Your task to perform on an android device: turn on notifications settings in the gmail app Image 0: 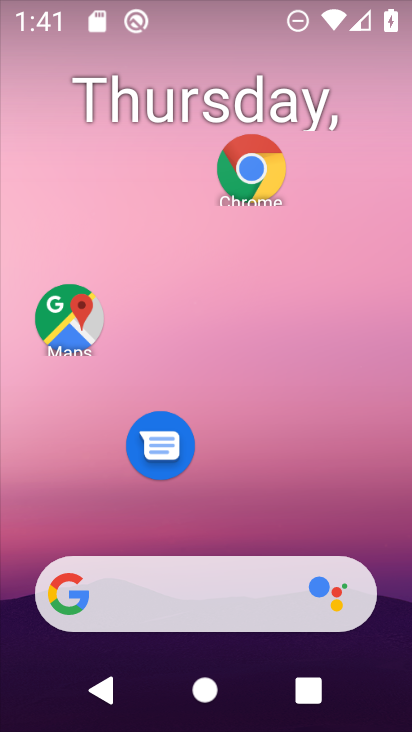
Step 0: click (299, 205)
Your task to perform on an android device: turn on notifications settings in the gmail app Image 1: 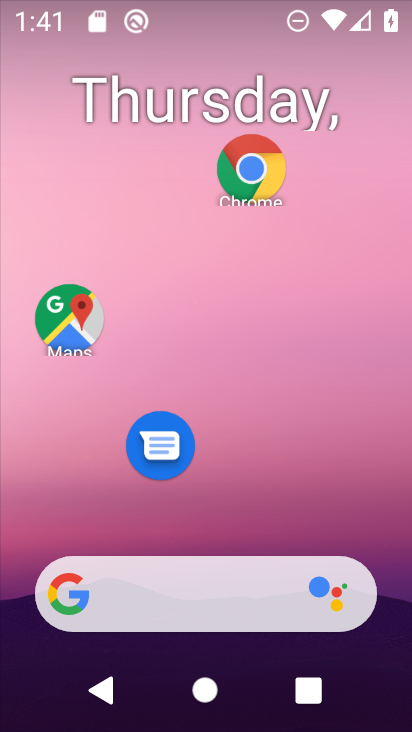
Step 1: drag from (277, 614) to (346, 106)
Your task to perform on an android device: turn on notifications settings in the gmail app Image 2: 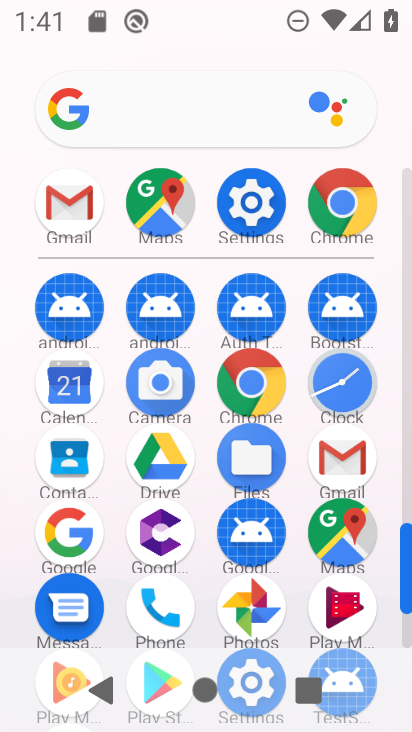
Step 2: click (83, 187)
Your task to perform on an android device: turn on notifications settings in the gmail app Image 3: 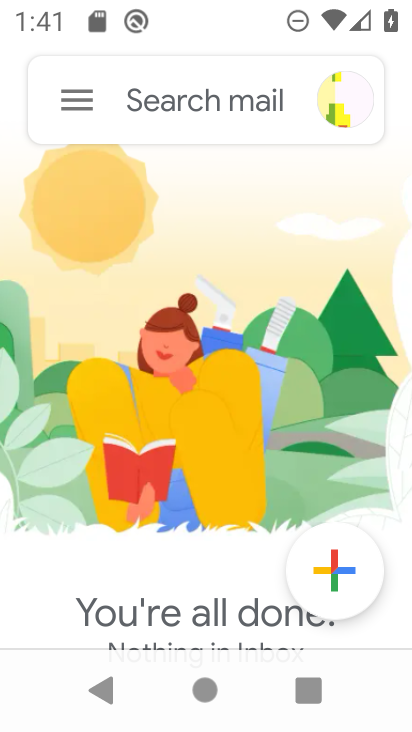
Step 3: click (81, 90)
Your task to perform on an android device: turn on notifications settings in the gmail app Image 4: 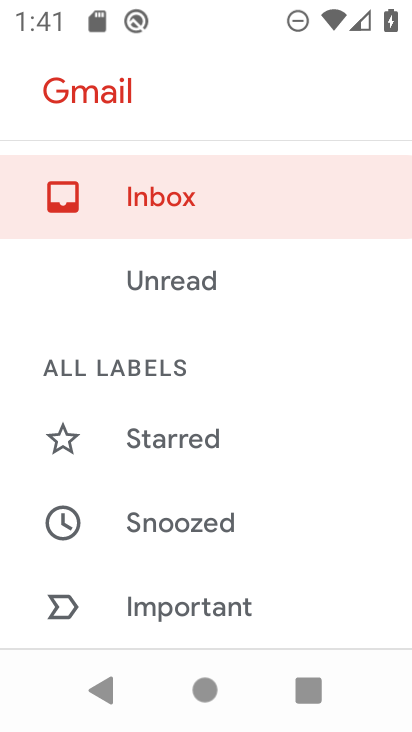
Step 4: drag from (177, 529) to (228, 233)
Your task to perform on an android device: turn on notifications settings in the gmail app Image 5: 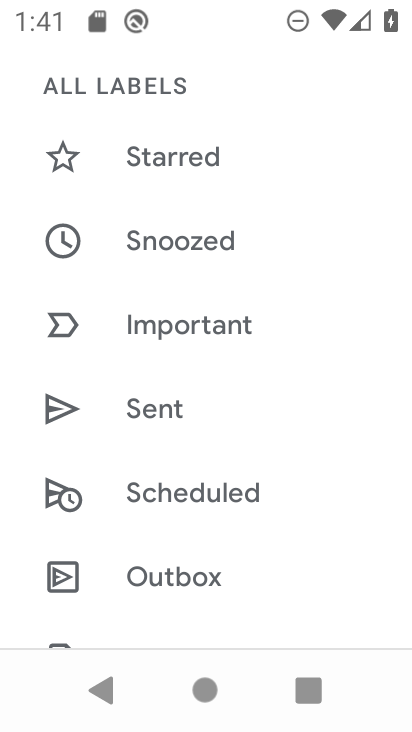
Step 5: drag from (199, 436) to (227, 205)
Your task to perform on an android device: turn on notifications settings in the gmail app Image 6: 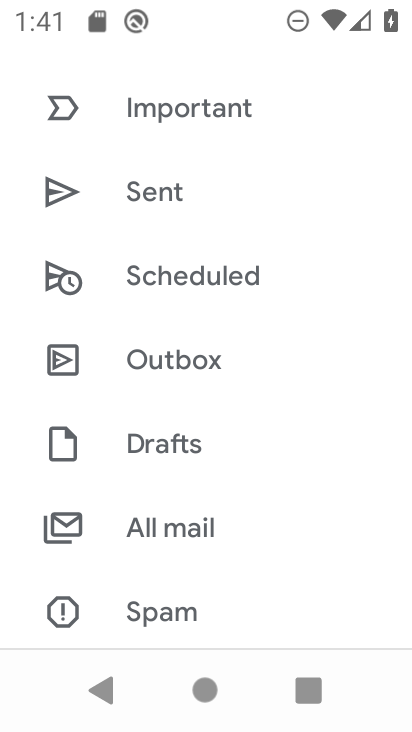
Step 6: drag from (171, 521) to (229, 269)
Your task to perform on an android device: turn on notifications settings in the gmail app Image 7: 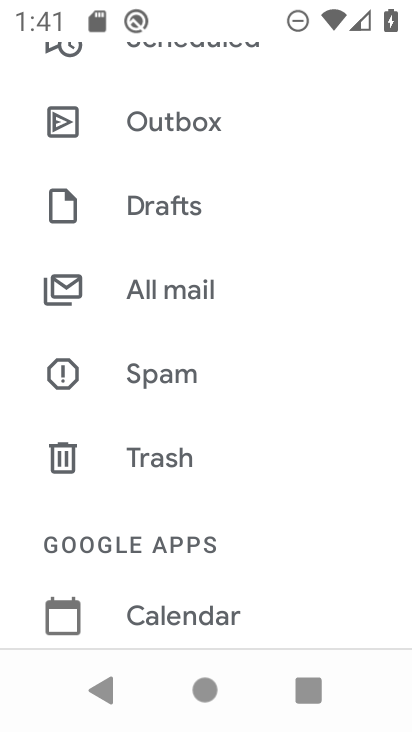
Step 7: drag from (158, 455) to (156, 225)
Your task to perform on an android device: turn on notifications settings in the gmail app Image 8: 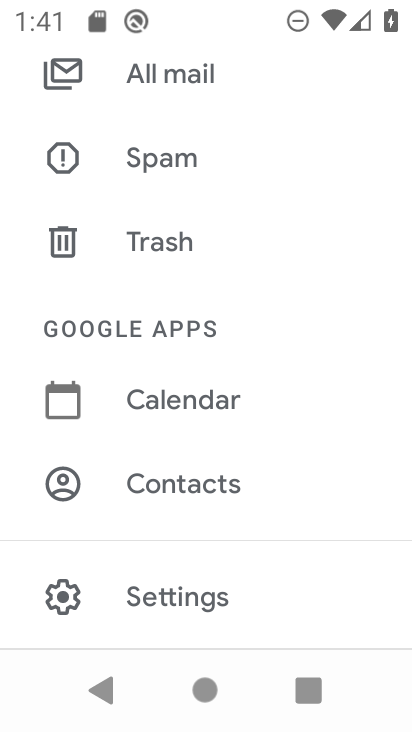
Step 8: click (178, 594)
Your task to perform on an android device: turn on notifications settings in the gmail app Image 9: 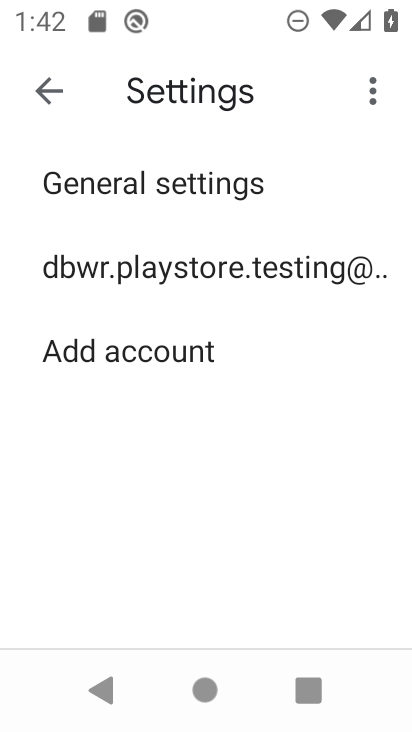
Step 9: click (198, 272)
Your task to perform on an android device: turn on notifications settings in the gmail app Image 10: 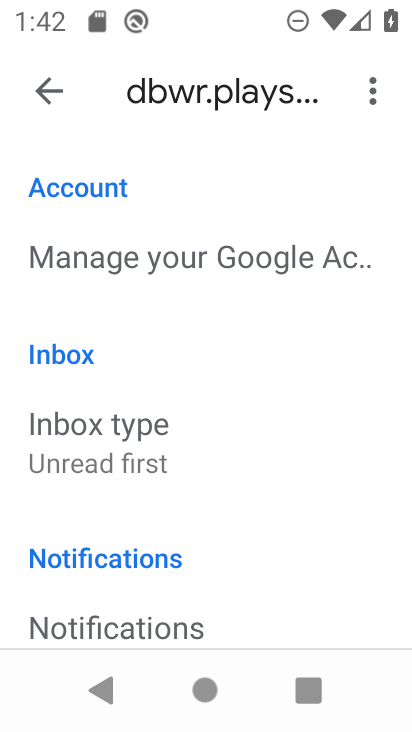
Step 10: click (109, 618)
Your task to perform on an android device: turn on notifications settings in the gmail app Image 11: 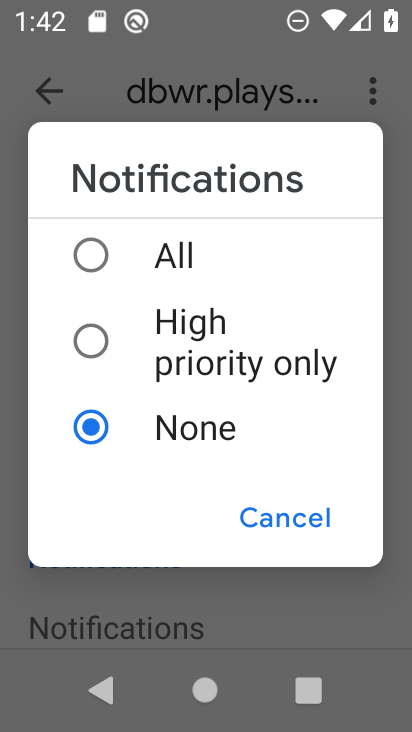
Step 11: click (169, 260)
Your task to perform on an android device: turn on notifications settings in the gmail app Image 12: 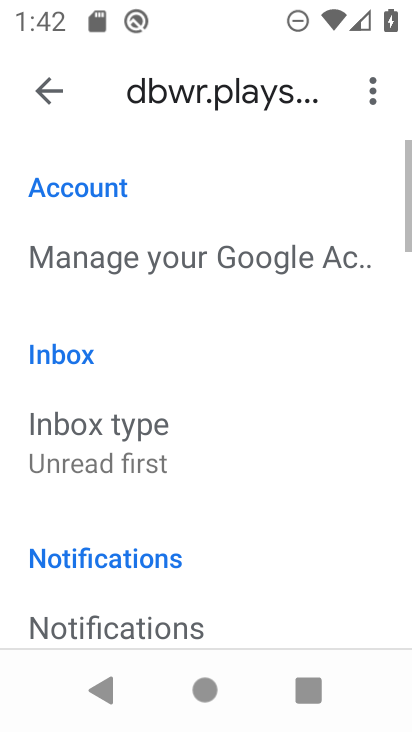
Step 12: task complete